Your task to perform on an android device: Search for sushi restaurants on Maps Image 0: 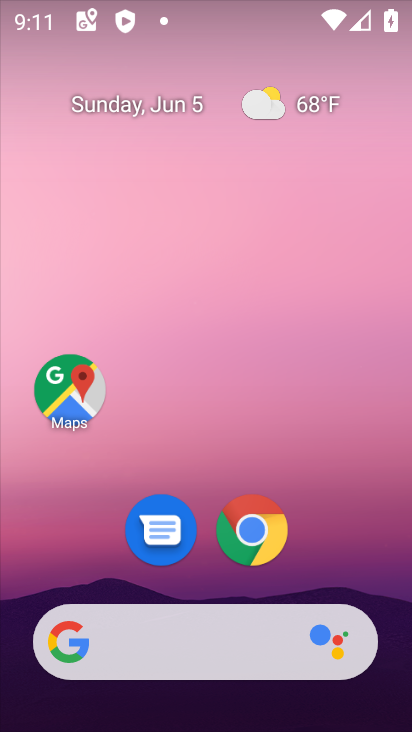
Step 0: click (69, 389)
Your task to perform on an android device: Search for sushi restaurants on Maps Image 1: 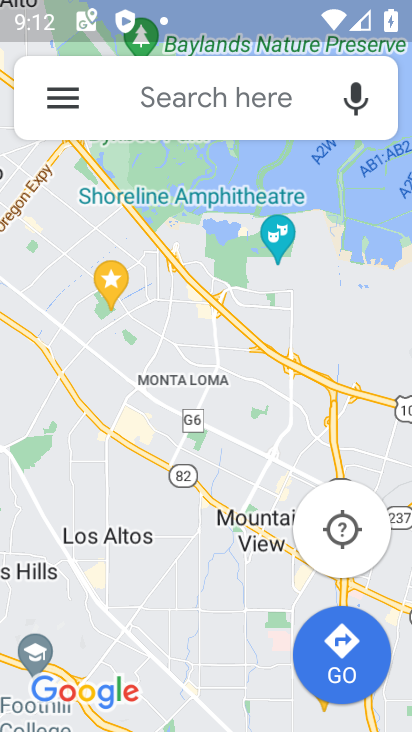
Step 1: click (184, 95)
Your task to perform on an android device: Search for sushi restaurants on Maps Image 2: 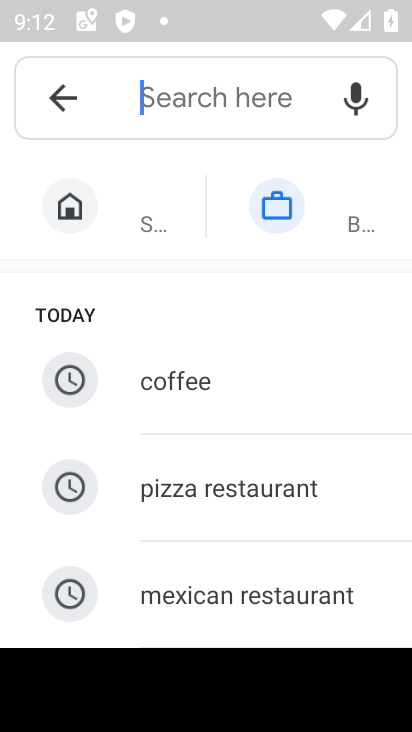
Step 2: type "sushi restaurants"
Your task to perform on an android device: Search for sushi restaurants on Maps Image 3: 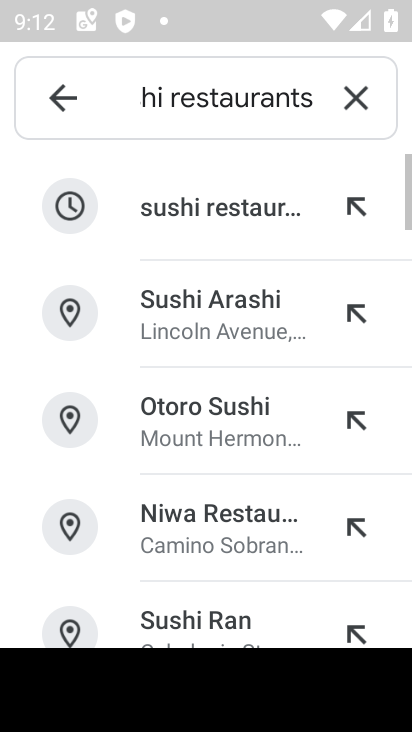
Step 3: click (194, 208)
Your task to perform on an android device: Search for sushi restaurants on Maps Image 4: 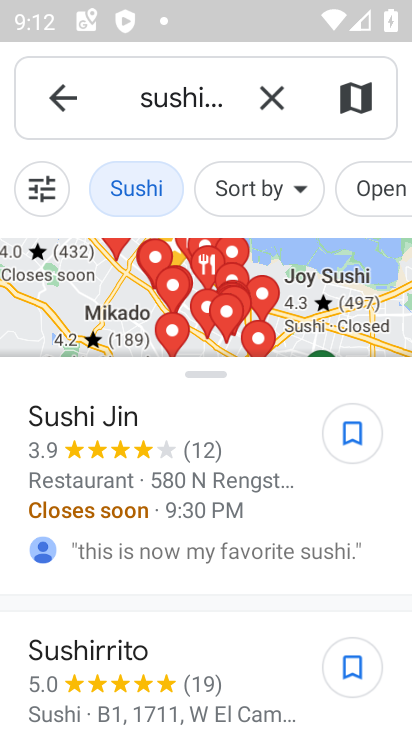
Step 4: task complete